Your task to perform on an android device: check data usage Image 0: 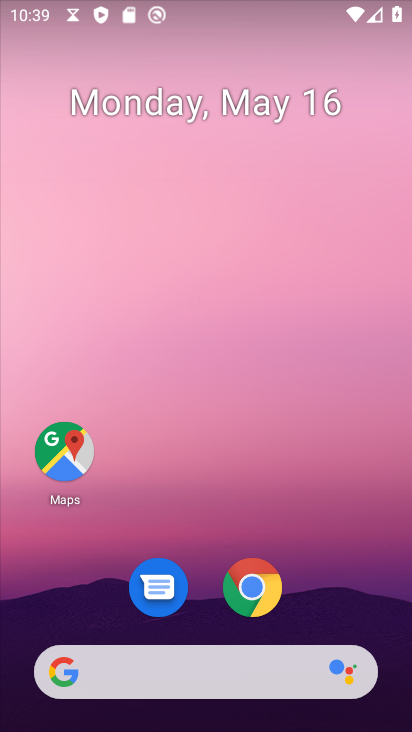
Step 0: drag from (329, 567) to (259, 58)
Your task to perform on an android device: check data usage Image 1: 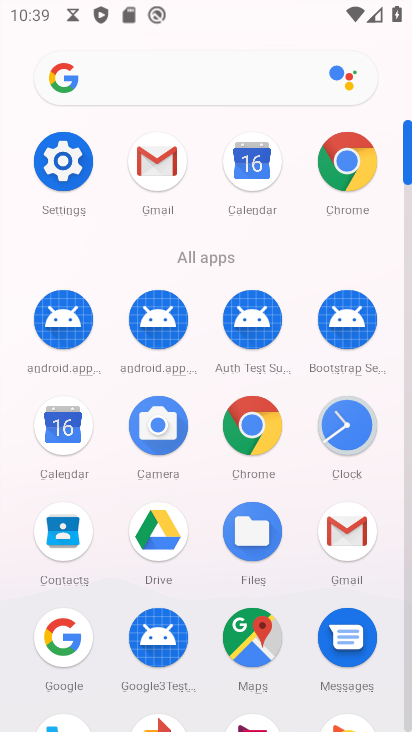
Step 1: drag from (0, 468) to (23, 229)
Your task to perform on an android device: check data usage Image 2: 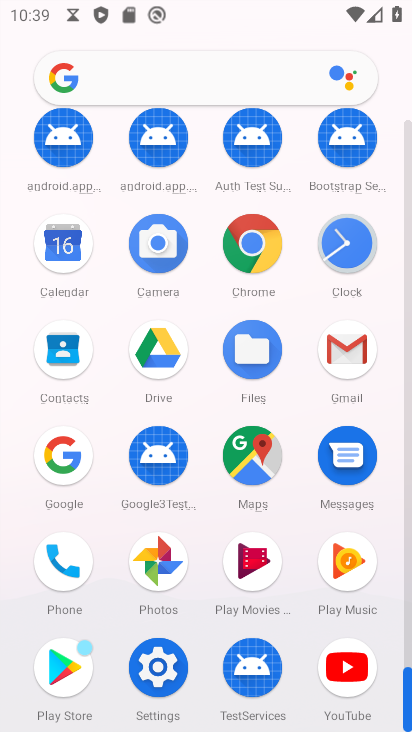
Step 2: drag from (2, 535) to (0, 203)
Your task to perform on an android device: check data usage Image 3: 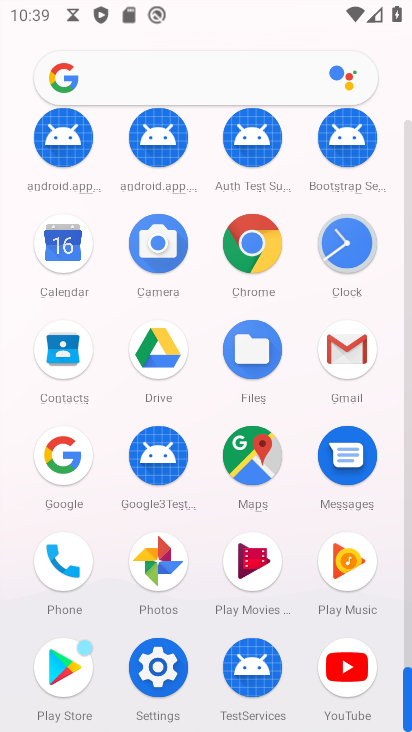
Step 3: click (153, 663)
Your task to perform on an android device: check data usage Image 4: 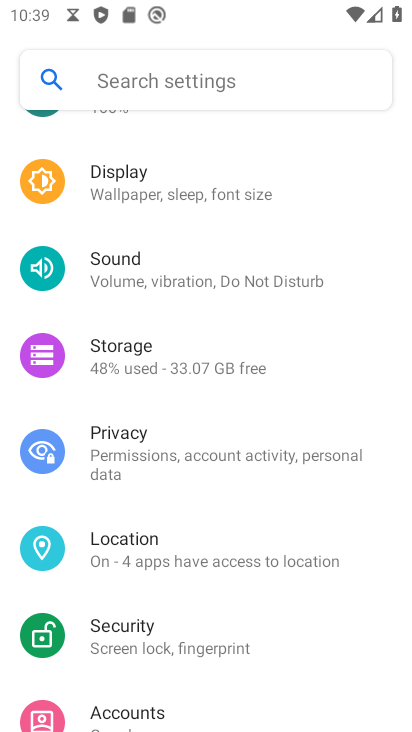
Step 4: drag from (275, 176) to (236, 500)
Your task to perform on an android device: check data usage Image 5: 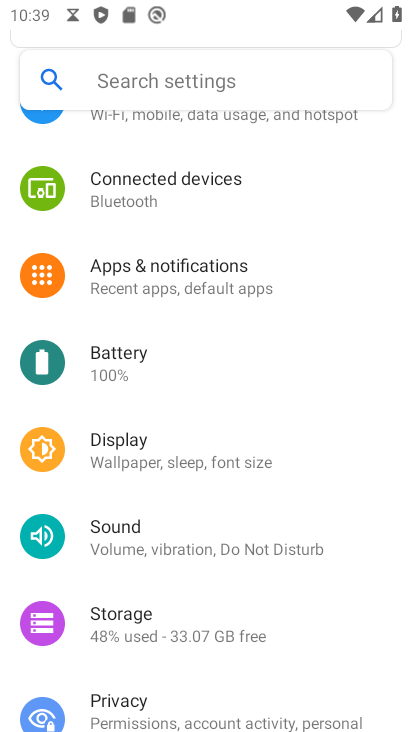
Step 5: drag from (239, 166) to (246, 503)
Your task to perform on an android device: check data usage Image 6: 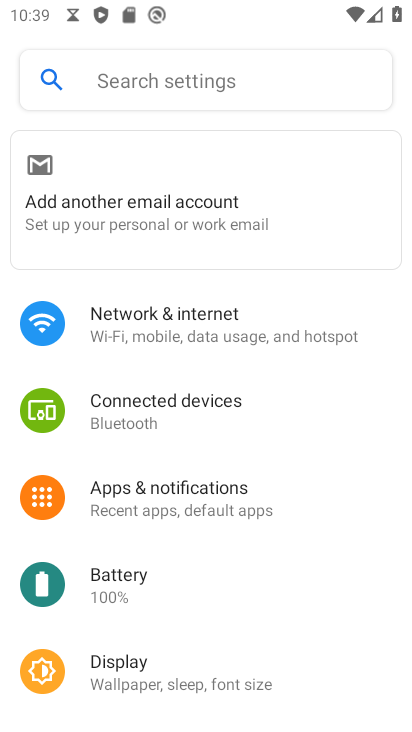
Step 6: click (219, 328)
Your task to perform on an android device: check data usage Image 7: 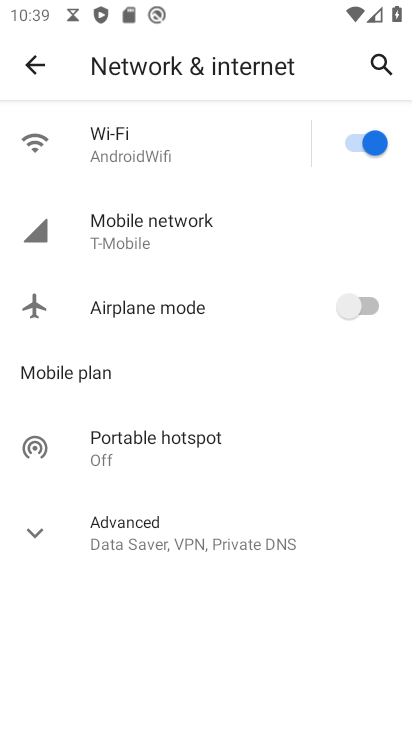
Step 7: click (176, 206)
Your task to perform on an android device: check data usage Image 8: 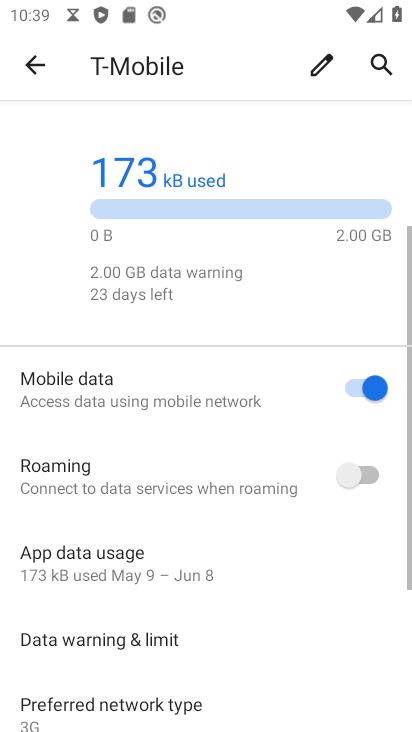
Step 8: task complete